Your task to perform on an android device: toggle notifications settings in the gmail app Image 0: 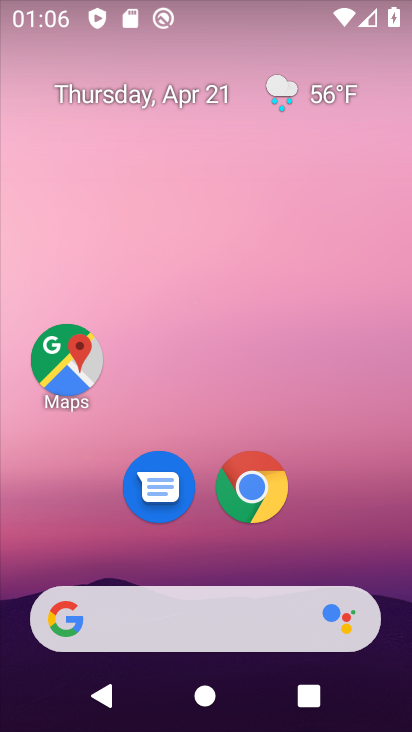
Step 0: drag from (207, 570) to (220, 137)
Your task to perform on an android device: toggle notifications settings in the gmail app Image 1: 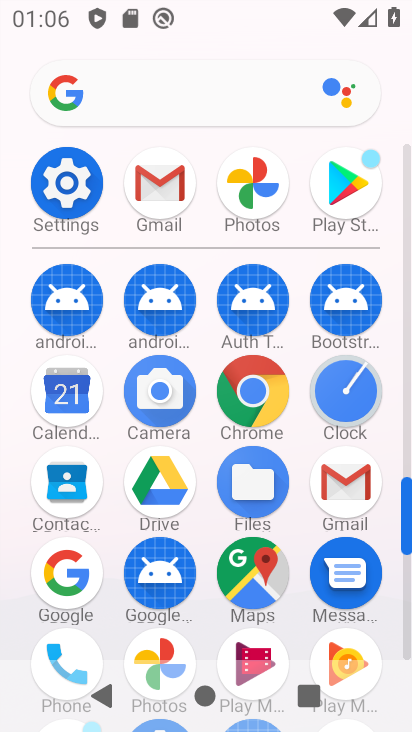
Step 1: click (158, 176)
Your task to perform on an android device: toggle notifications settings in the gmail app Image 2: 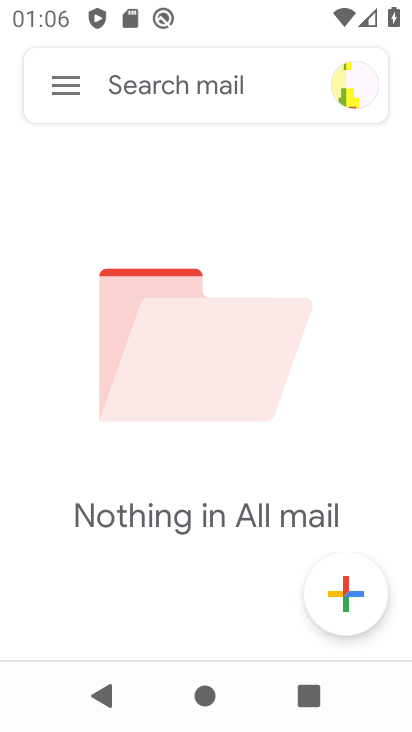
Step 2: click (64, 96)
Your task to perform on an android device: toggle notifications settings in the gmail app Image 3: 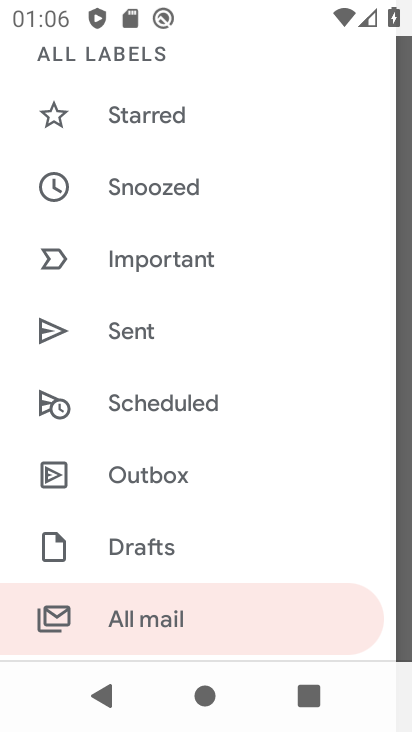
Step 3: drag from (188, 566) to (184, 490)
Your task to perform on an android device: toggle notifications settings in the gmail app Image 4: 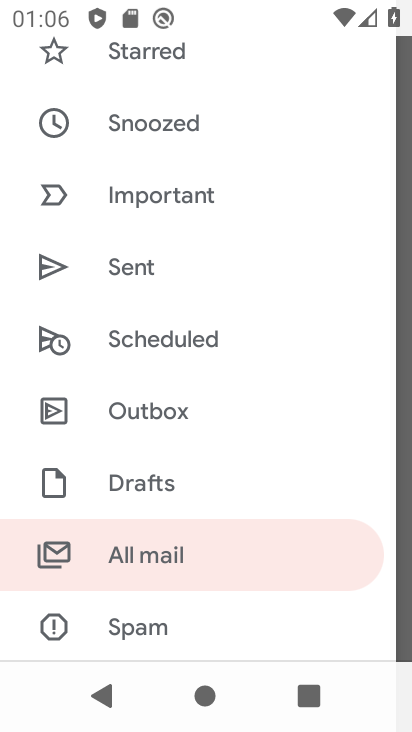
Step 4: drag from (178, 589) to (166, 493)
Your task to perform on an android device: toggle notifications settings in the gmail app Image 5: 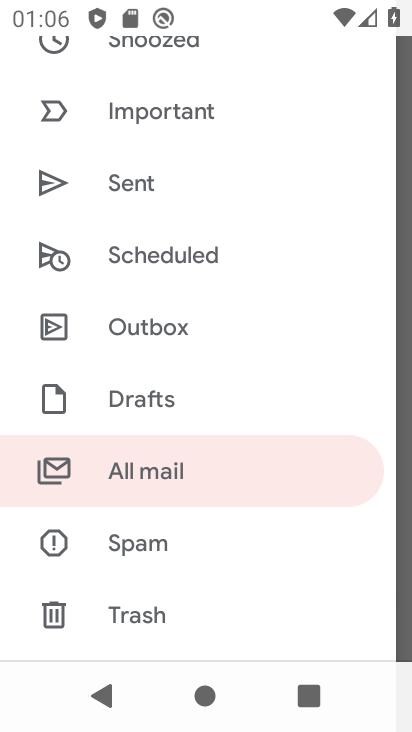
Step 5: drag from (158, 568) to (163, 468)
Your task to perform on an android device: toggle notifications settings in the gmail app Image 6: 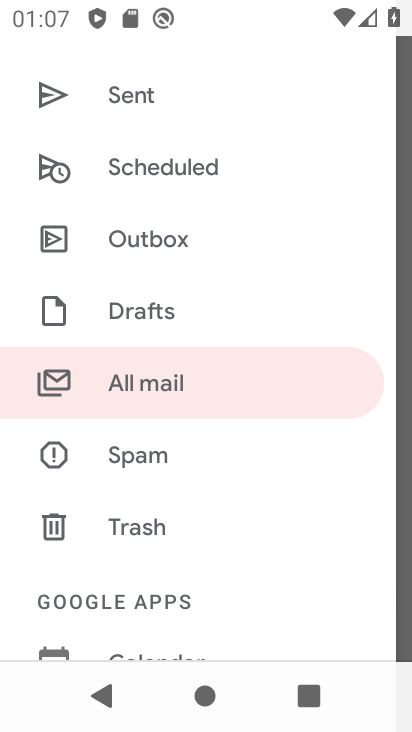
Step 6: drag from (186, 555) to (191, 472)
Your task to perform on an android device: toggle notifications settings in the gmail app Image 7: 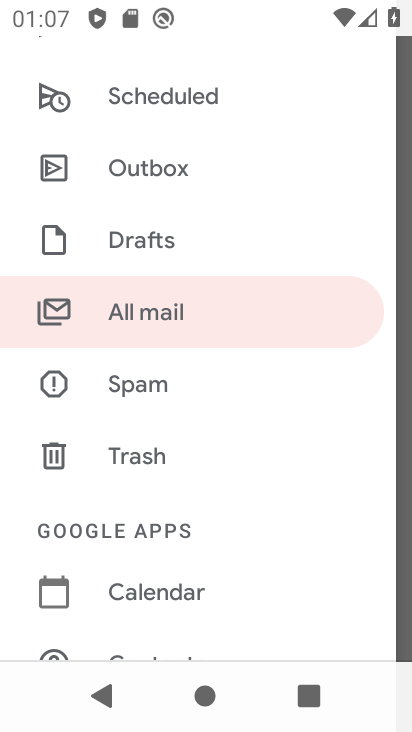
Step 7: drag from (160, 560) to (164, 492)
Your task to perform on an android device: toggle notifications settings in the gmail app Image 8: 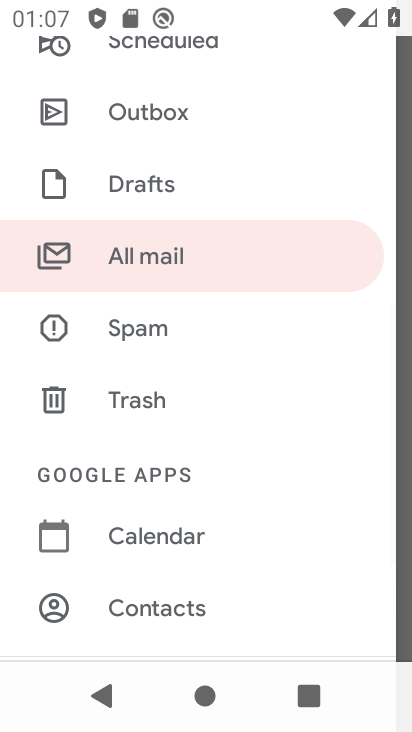
Step 8: drag from (158, 565) to (156, 485)
Your task to perform on an android device: toggle notifications settings in the gmail app Image 9: 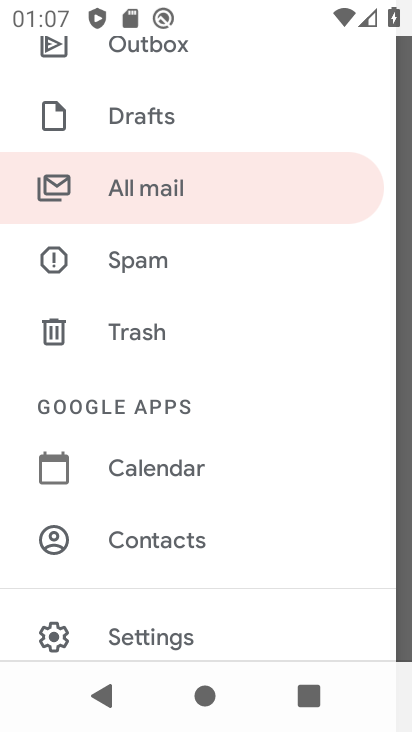
Step 9: drag from (185, 633) to (168, 477)
Your task to perform on an android device: toggle notifications settings in the gmail app Image 10: 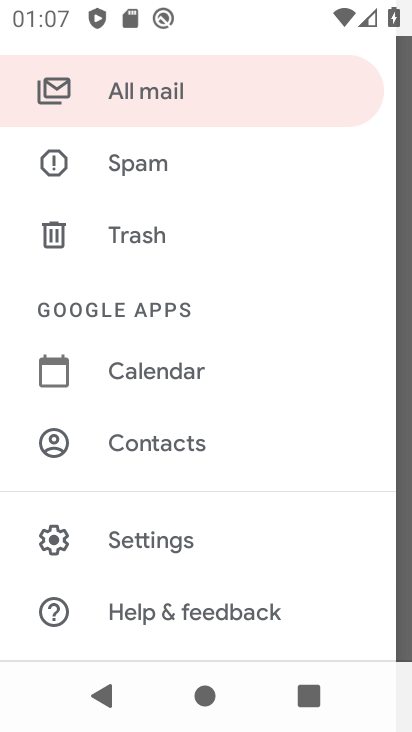
Step 10: drag from (124, 577) to (133, 482)
Your task to perform on an android device: toggle notifications settings in the gmail app Image 11: 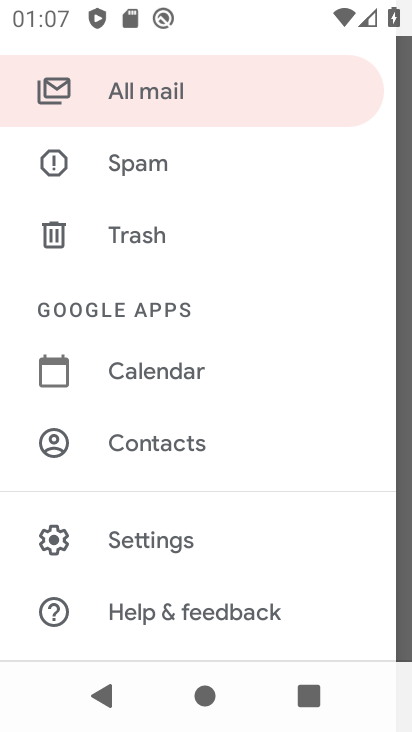
Step 11: click (142, 536)
Your task to perform on an android device: toggle notifications settings in the gmail app Image 12: 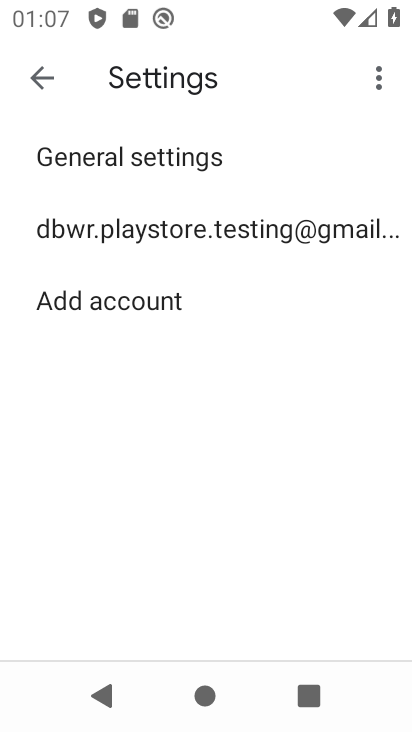
Step 12: click (229, 234)
Your task to perform on an android device: toggle notifications settings in the gmail app Image 13: 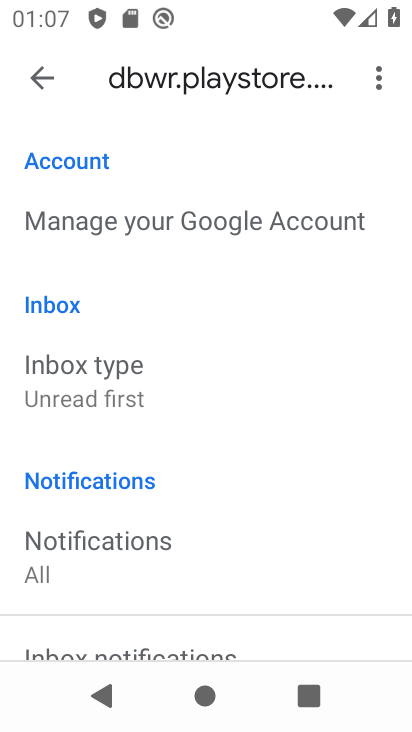
Step 13: drag from (176, 582) to (195, 213)
Your task to perform on an android device: toggle notifications settings in the gmail app Image 14: 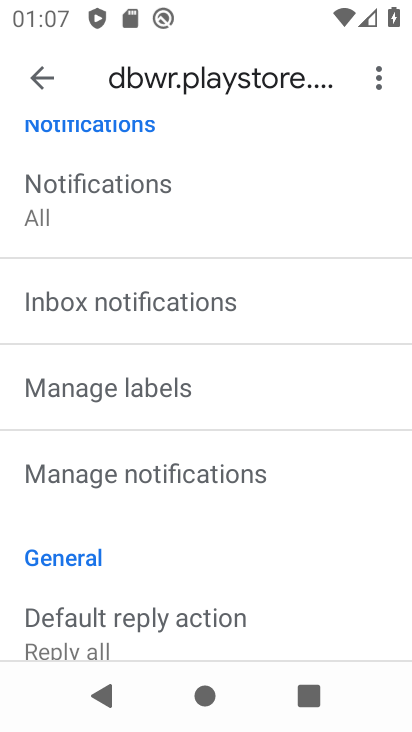
Step 14: click (202, 485)
Your task to perform on an android device: toggle notifications settings in the gmail app Image 15: 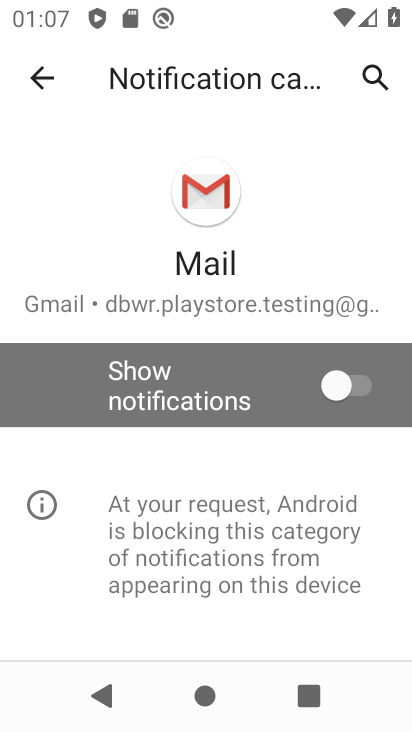
Step 15: click (351, 393)
Your task to perform on an android device: toggle notifications settings in the gmail app Image 16: 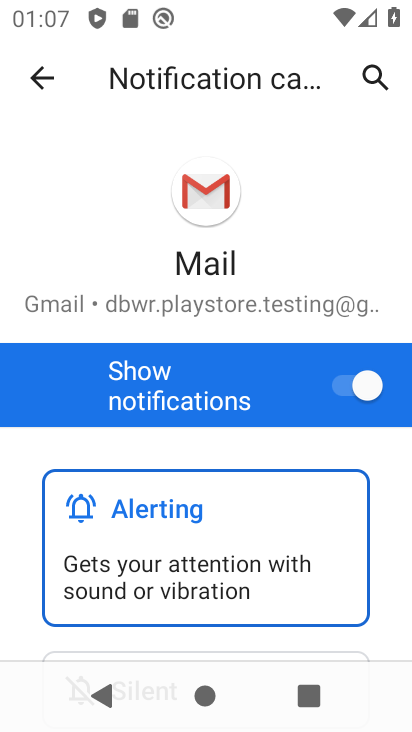
Step 16: task complete